Your task to perform on an android device: Open the map Image 0: 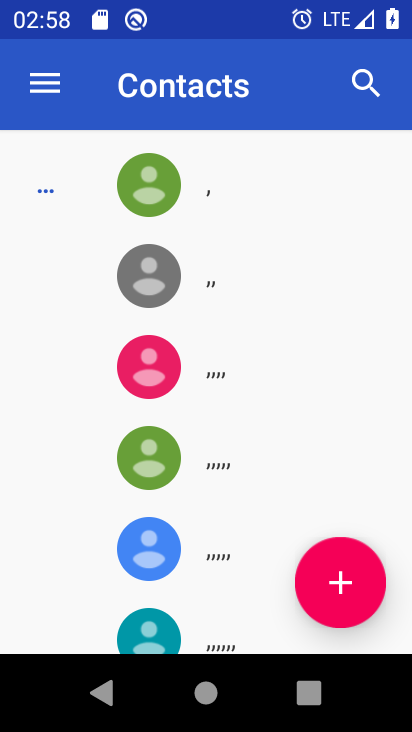
Step 0: press home button
Your task to perform on an android device: Open the map Image 1: 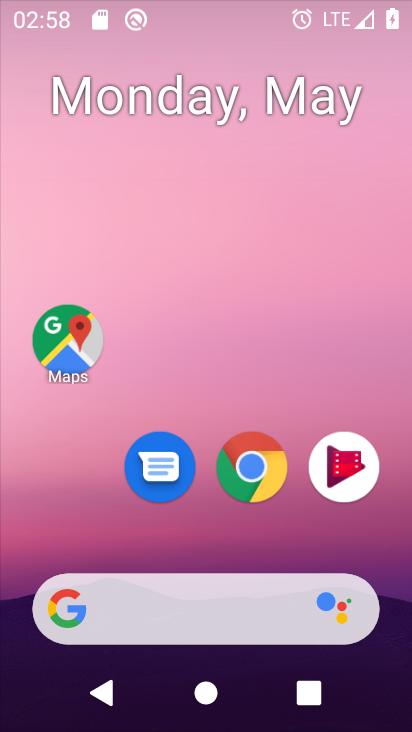
Step 1: click (57, 339)
Your task to perform on an android device: Open the map Image 2: 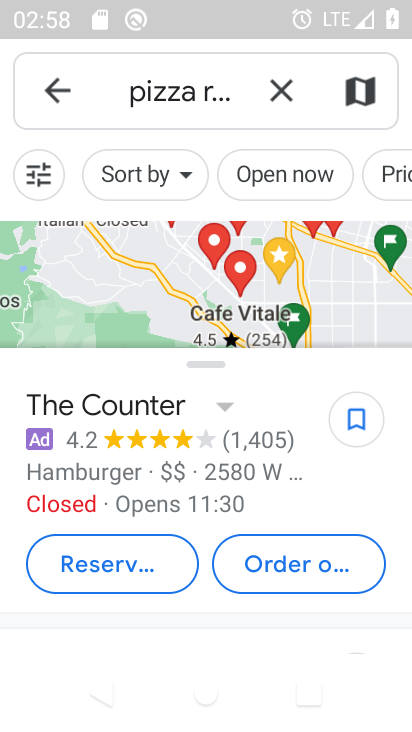
Step 2: click (265, 87)
Your task to perform on an android device: Open the map Image 3: 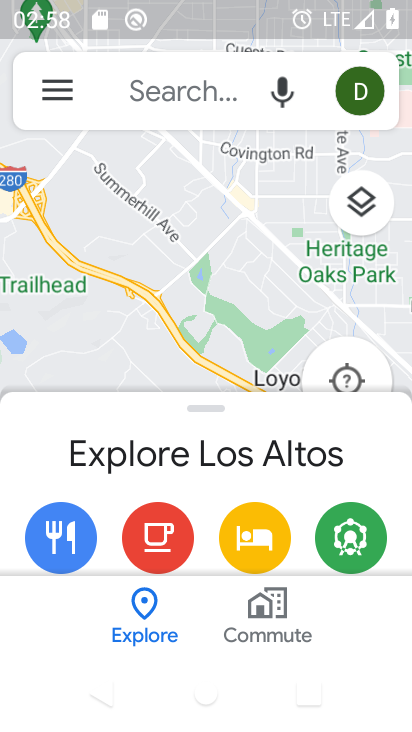
Step 3: task complete